Your task to perform on an android device: Search for Italian restaurants on Maps Image 0: 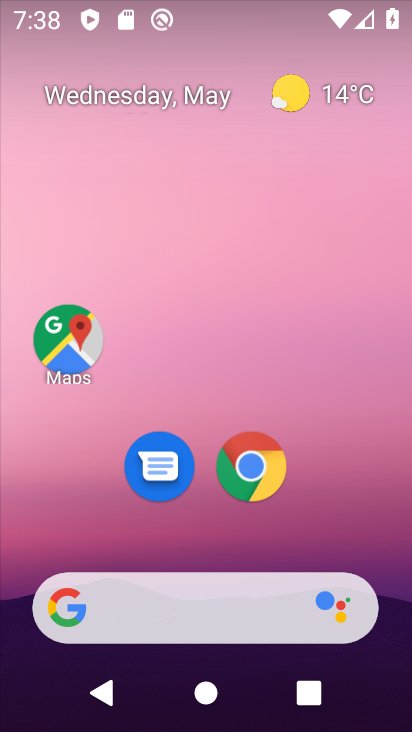
Step 0: press home button
Your task to perform on an android device: Search for Italian restaurants on Maps Image 1: 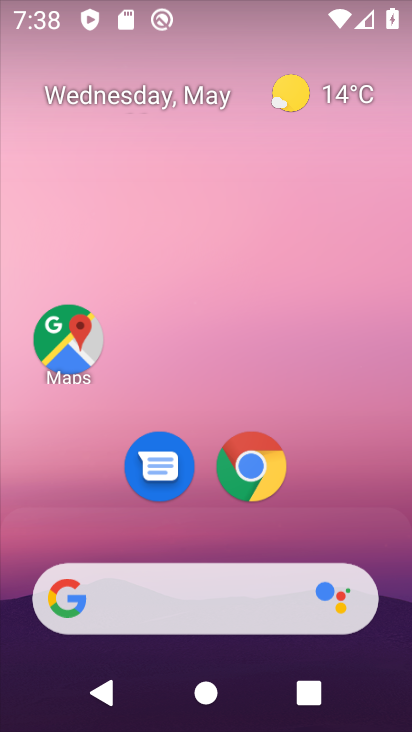
Step 1: click (70, 349)
Your task to perform on an android device: Search for Italian restaurants on Maps Image 2: 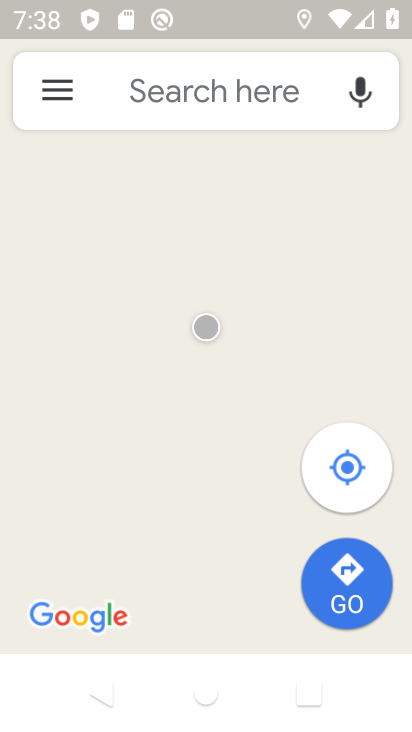
Step 2: click (172, 69)
Your task to perform on an android device: Search for Italian restaurants on Maps Image 3: 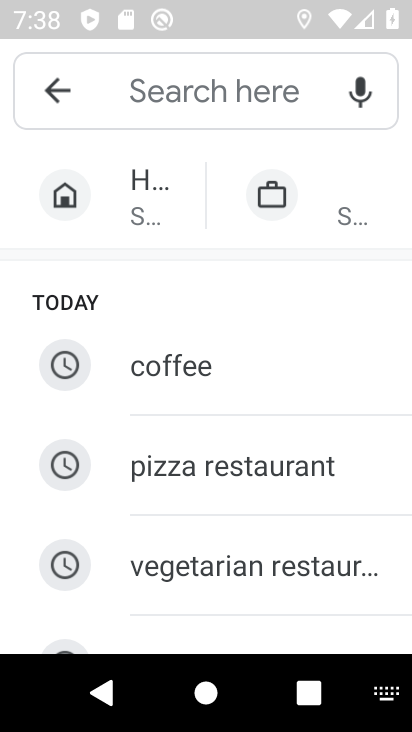
Step 3: drag from (230, 570) to (226, 27)
Your task to perform on an android device: Search for Italian restaurants on Maps Image 4: 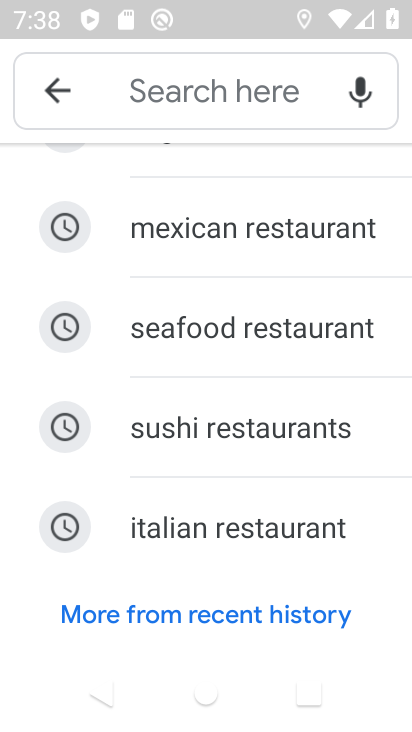
Step 4: click (191, 534)
Your task to perform on an android device: Search for Italian restaurants on Maps Image 5: 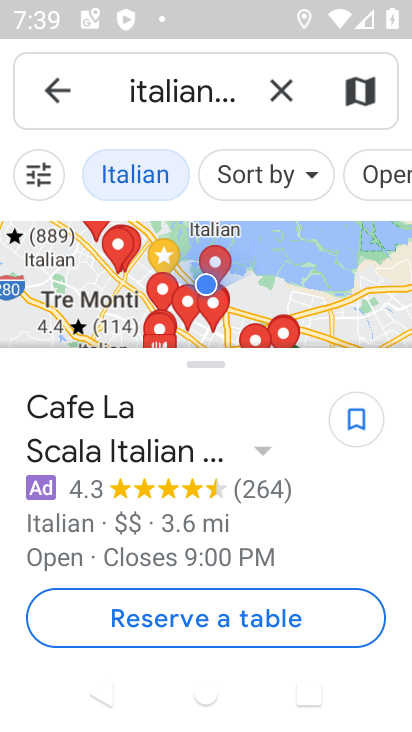
Step 5: drag from (209, 535) to (214, 285)
Your task to perform on an android device: Search for Italian restaurants on Maps Image 6: 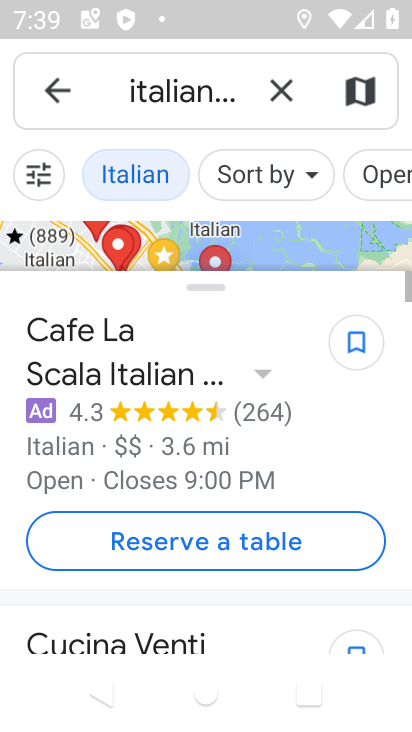
Step 6: click (233, 133)
Your task to perform on an android device: Search for Italian restaurants on Maps Image 7: 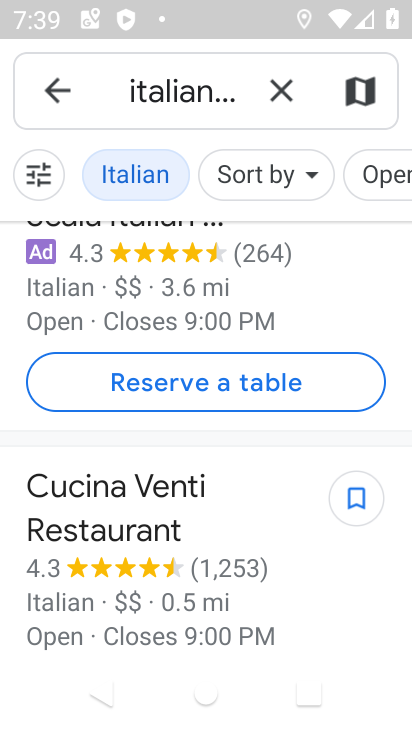
Step 7: task complete